Your task to perform on an android device: turn on wifi Image 0: 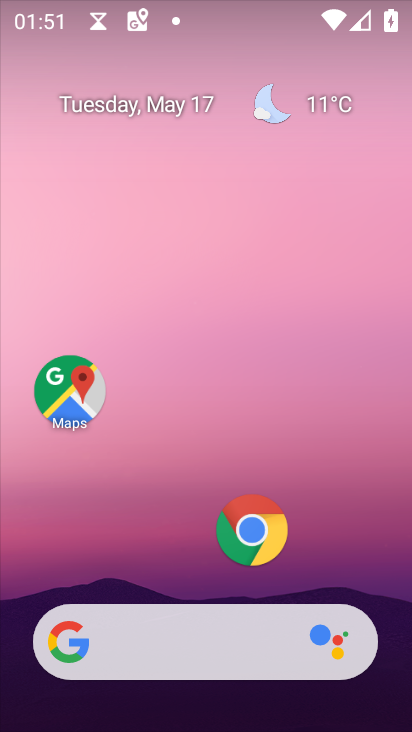
Step 0: drag from (324, 525) to (268, 140)
Your task to perform on an android device: turn on wifi Image 1: 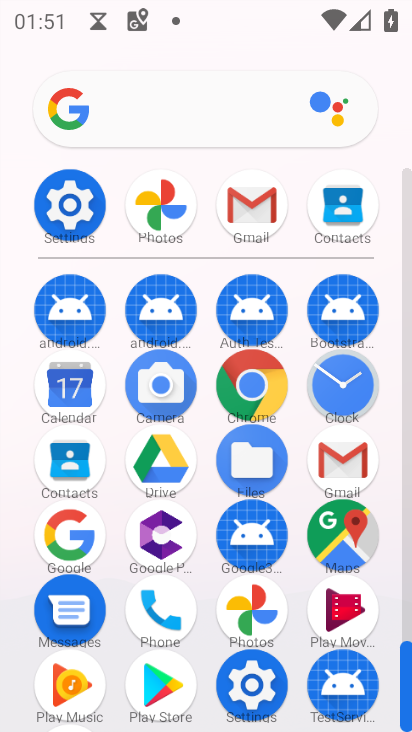
Step 1: click (82, 221)
Your task to perform on an android device: turn on wifi Image 2: 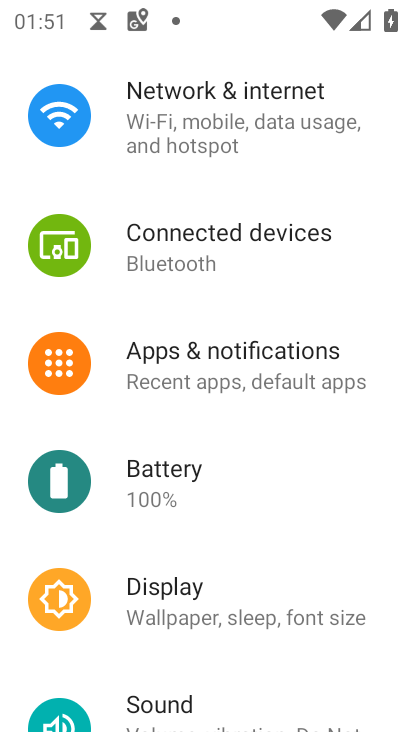
Step 2: click (136, 118)
Your task to perform on an android device: turn on wifi Image 3: 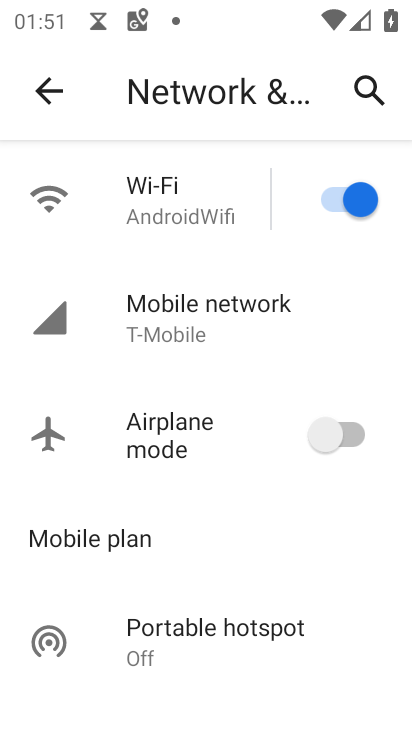
Step 3: task complete